Your task to perform on an android device: turn off notifications in google photos Image 0: 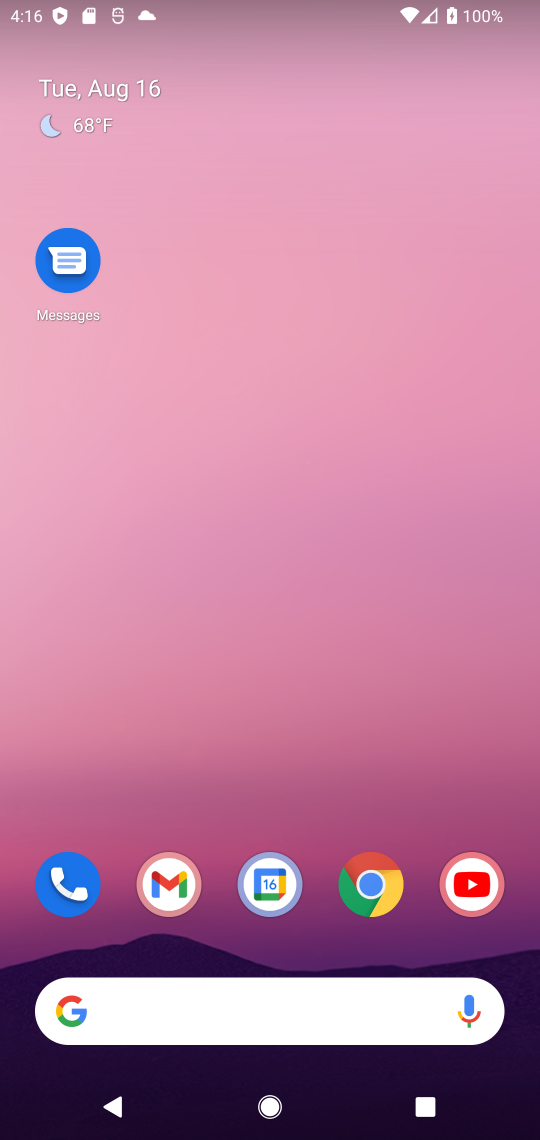
Step 0: drag from (163, 551) to (206, 194)
Your task to perform on an android device: turn off notifications in google photos Image 1: 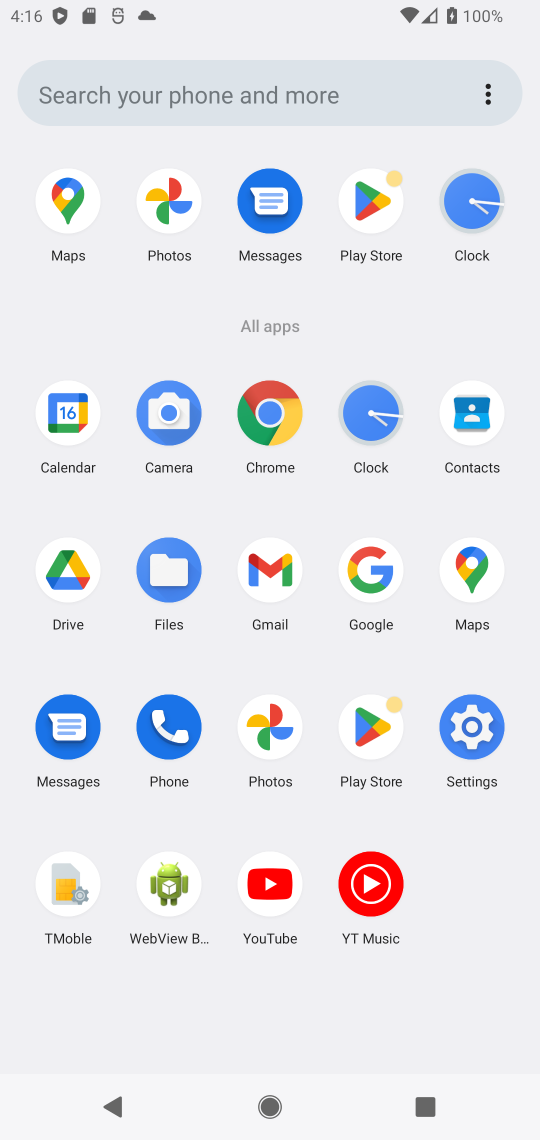
Step 1: click (271, 735)
Your task to perform on an android device: turn off notifications in google photos Image 2: 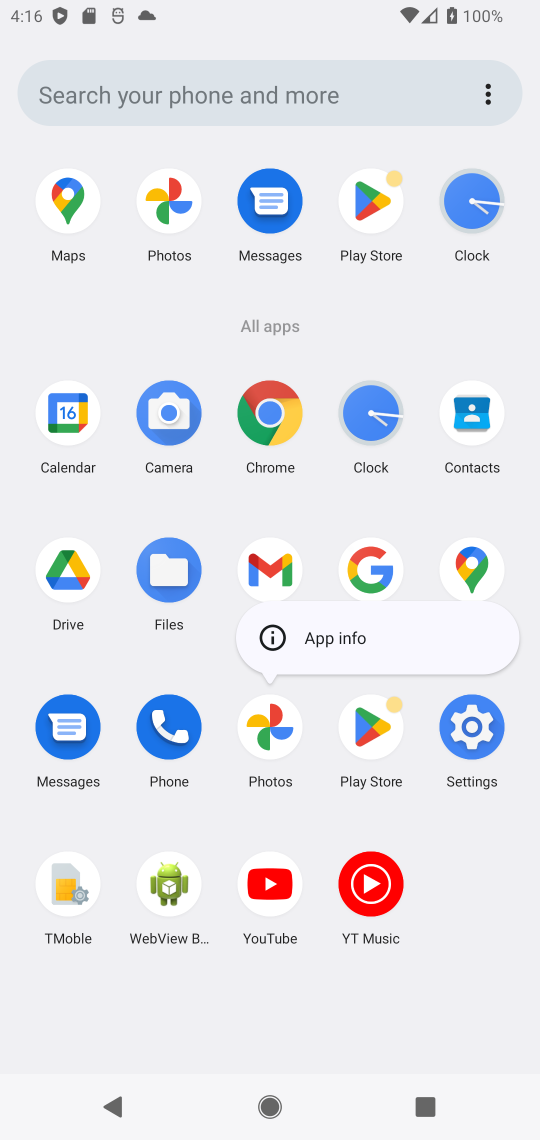
Step 2: click (258, 764)
Your task to perform on an android device: turn off notifications in google photos Image 3: 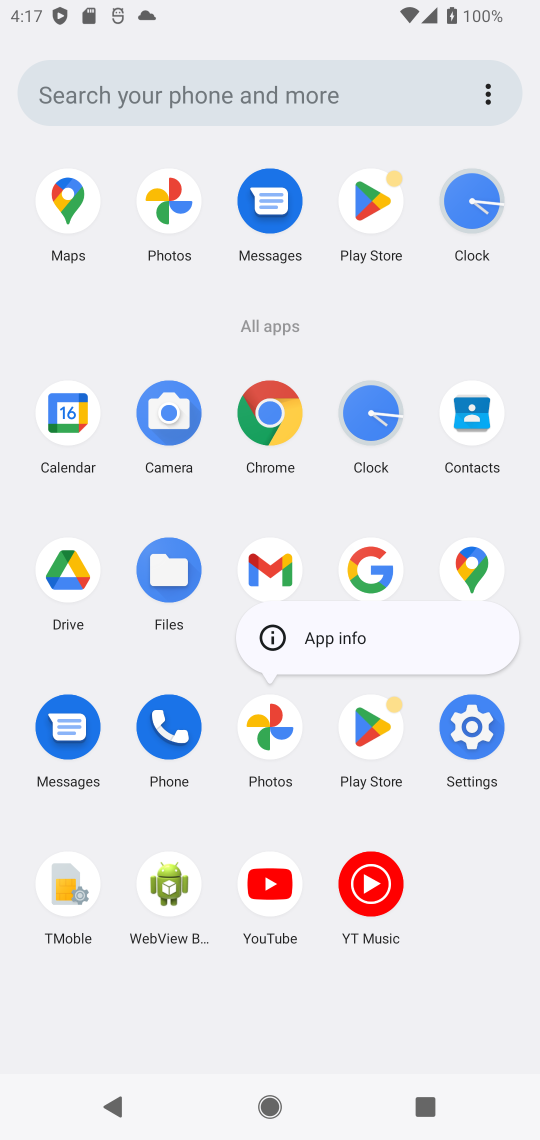
Step 3: task complete